Your task to perform on an android device: install app "Google Keep" Image 0: 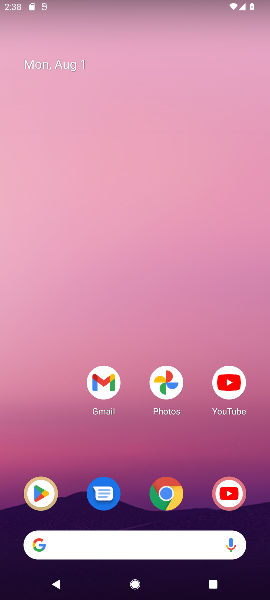
Step 0: click (44, 481)
Your task to perform on an android device: install app "Google Keep" Image 1: 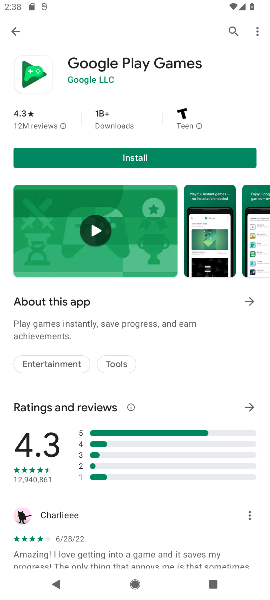
Step 1: click (234, 34)
Your task to perform on an android device: install app "Google Keep" Image 2: 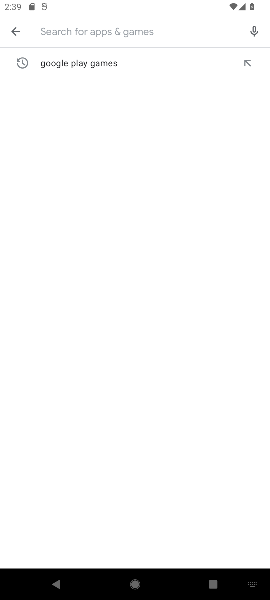
Step 2: type "google keep"
Your task to perform on an android device: install app "Google Keep" Image 3: 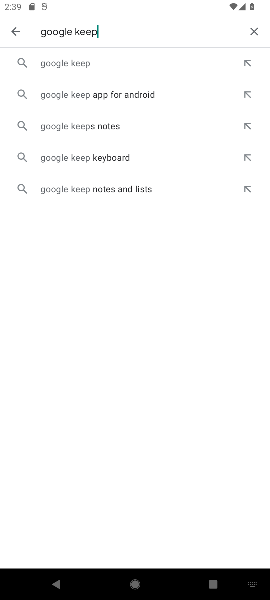
Step 3: click (125, 55)
Your task to perform on an android device: install app "Google Keep" Image 4: 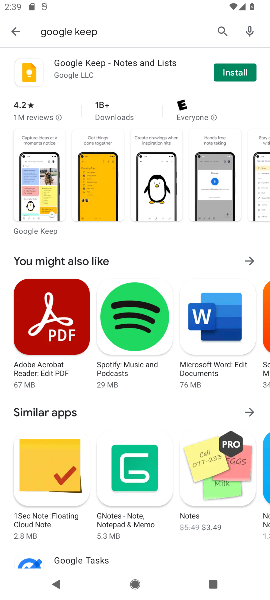
Step 4: click (125, 55)
Your task to perform on an android device: install app "Google Keep" Image 5: 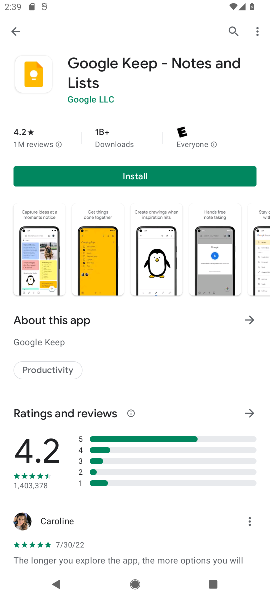
Step 5: click (184, 181)
Your task to perform on an android device: install app "Google Keep" Image 6: 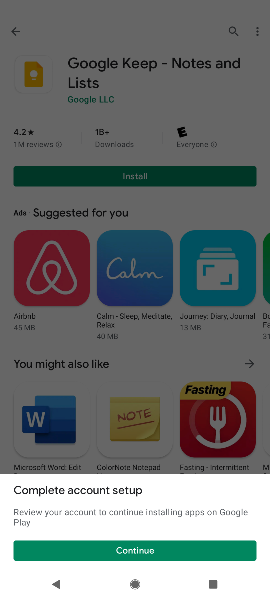
Step 6: click (172, 550)
Your task to perform on an android device: install app "Google Keep" Image 7: 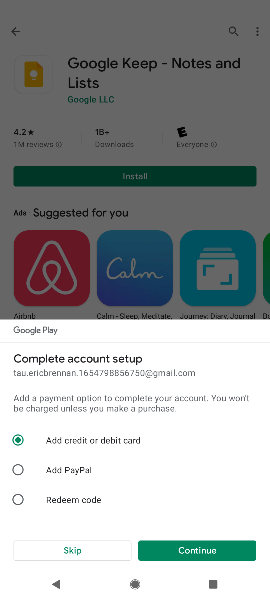
Step 7: click (93, 550)
Your task to perform on an android device: install app "Google Keep" Image 8: 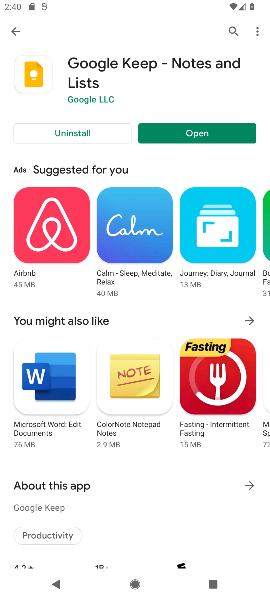
Step 8: task complete